Your task to perform on an android device: turn on sleep mode Image 0: 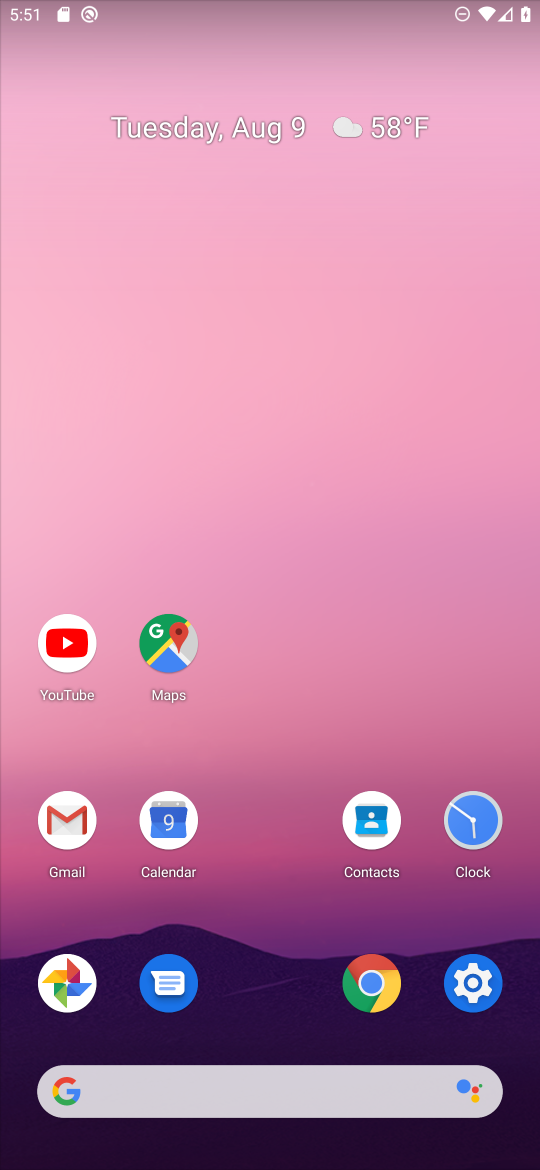
Step 0: click (479, 974)
Your task to perform on an android device: turn on sleep mode Image 1: 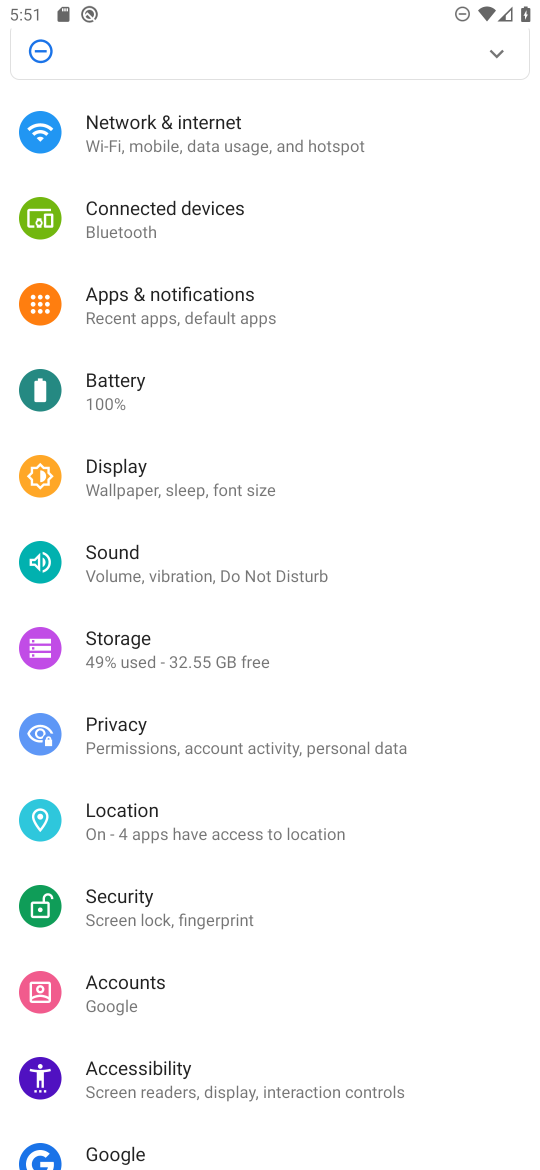
Step 1: click (125, 462)
Your task to perform on an android device: turn on sleep mode Image 2: 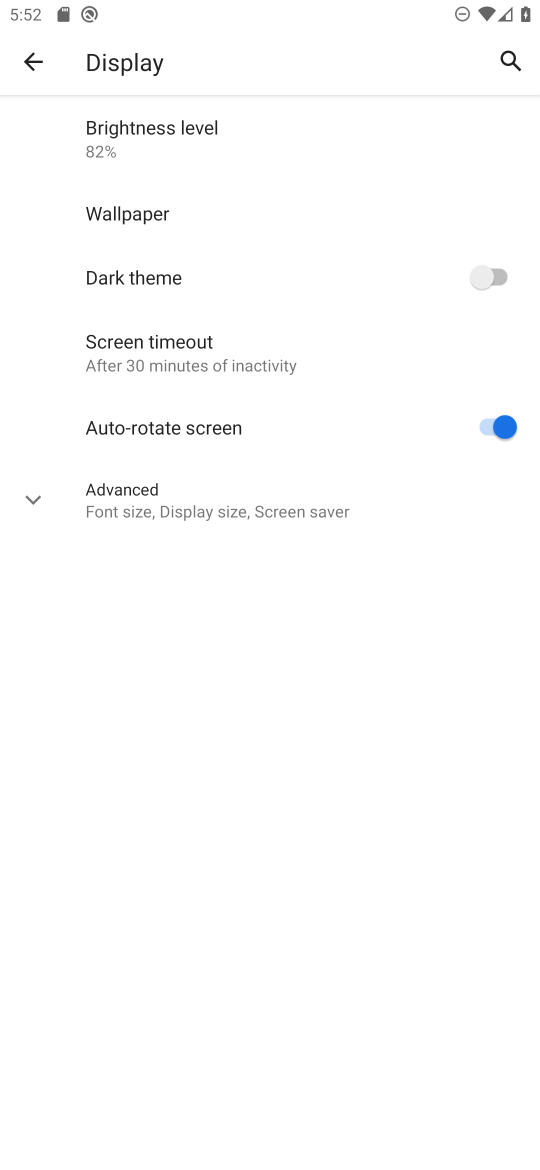
Step 2: task complete